Your task to perform on an android device: Open Wikipedia Image 0: 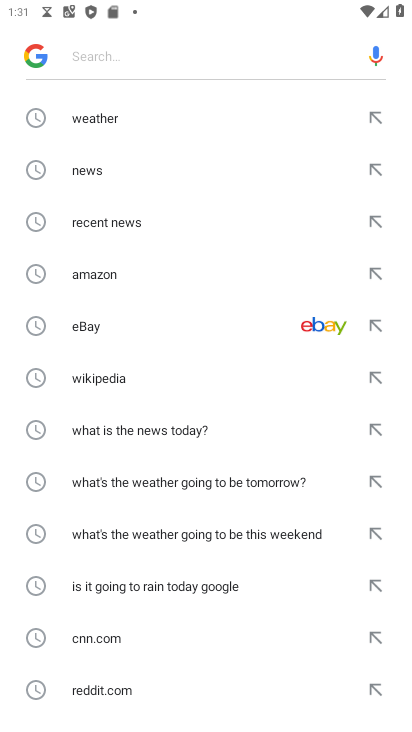
Step 0: drag from (221, 645) to (211, 75)
Your task to perform on an android device: Open Wikipedia Image 1: 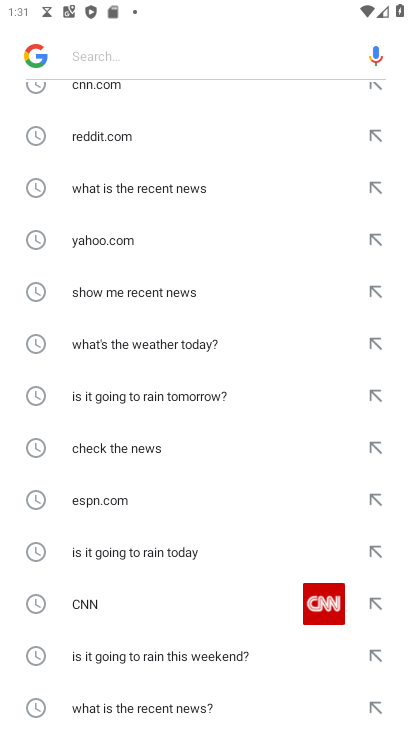
Step 1: press home button
Your task to perform on an android device: Open Wikipedia Image 2: 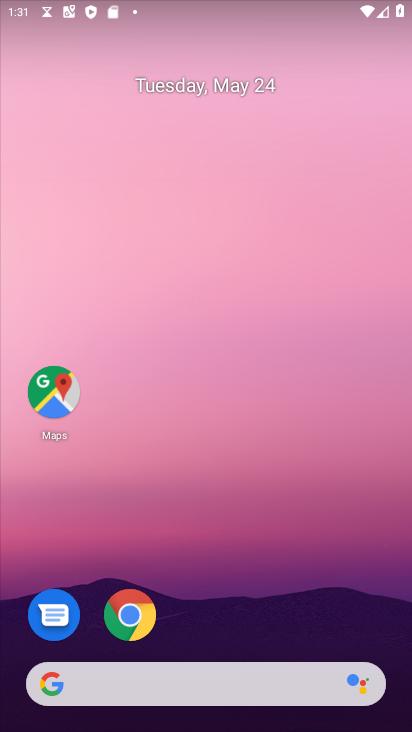
Step 2: click (129, 604)
Your task to perform on an android device: Open Wikipedia Image 3: 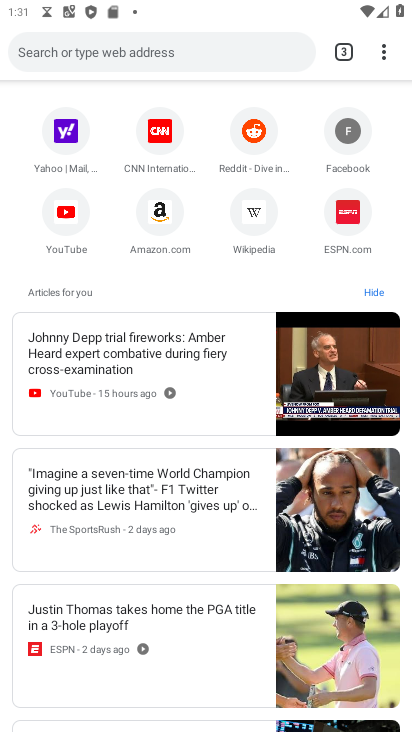
Step 3: click (250, 210)
Your task to perform on an android device: Open Wikipedia Image 4: 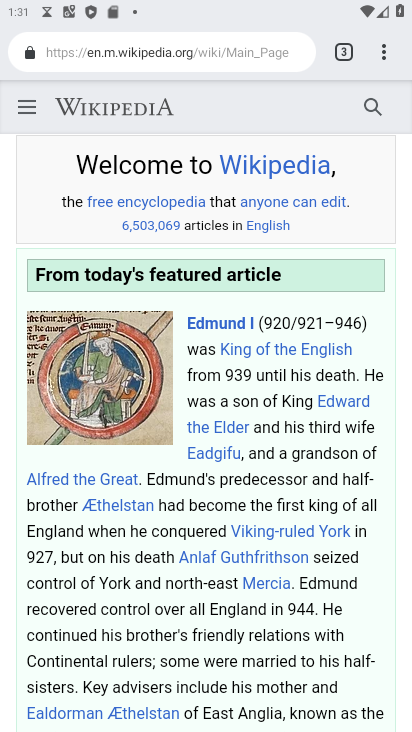
Step 4: task complete